Your task to perform on an android device: find snoozed emails in the gmail app Image 0: 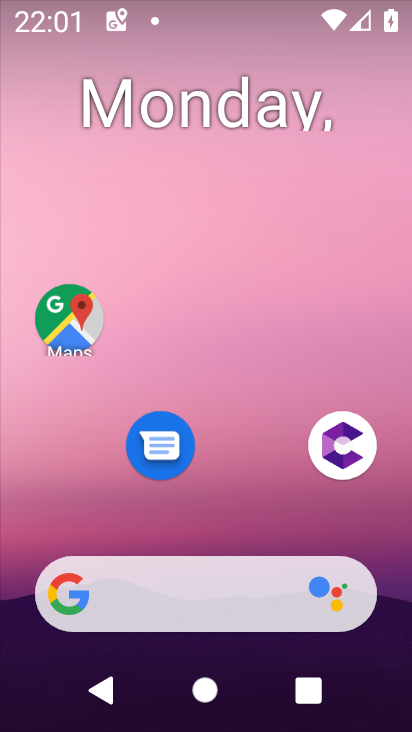
Step 0: drag from (241, 531) to (251, 166)
Your task to perform on an android device: find snoozed emails in the gmail app Image 1: 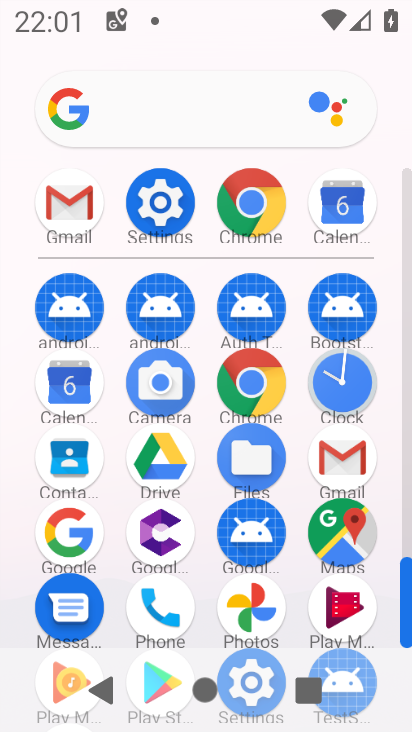
Step 1: click (71, 206)
Your task to perform on an android device: find snoozed emails in the gmail app Image 2: 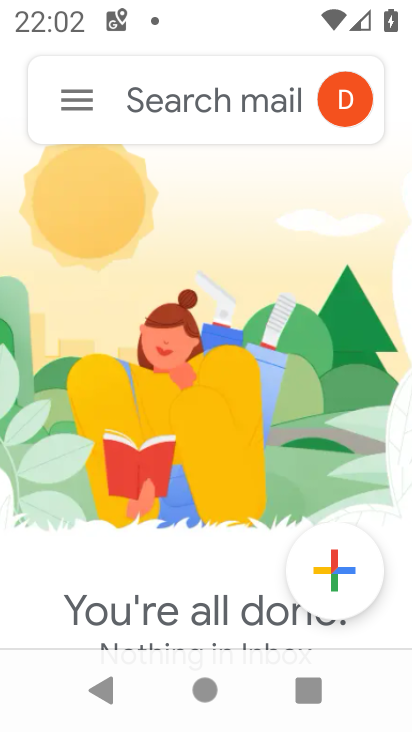
Step 2: click (79, 99)
Your task to perform on an android device: find snoozed emails in the gmail app Image 3: 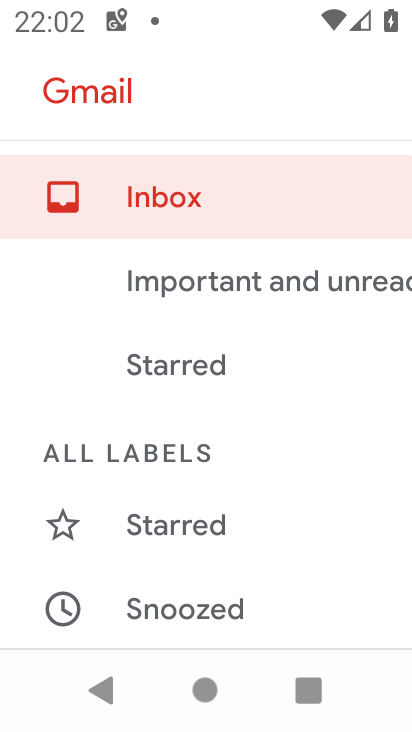
Step 3: click (168, 610)
Your task to perform on an android device: find snoozed emails in the gmail app Image 4: 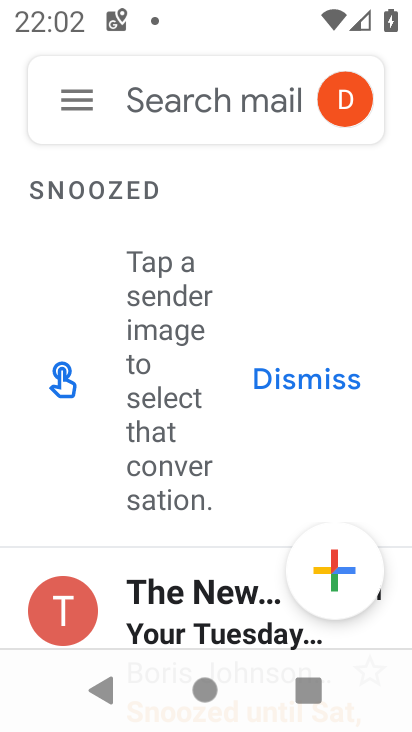
Step 4: task complete